Your task to perform on an android device: Open settings on Google Maps Image 0: 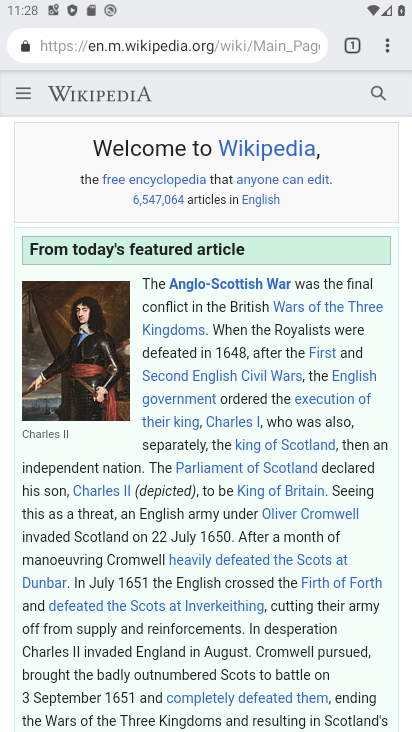
Step 0: press home button
Your task to perform on an android device: Open settings on Google Maps Image 1: 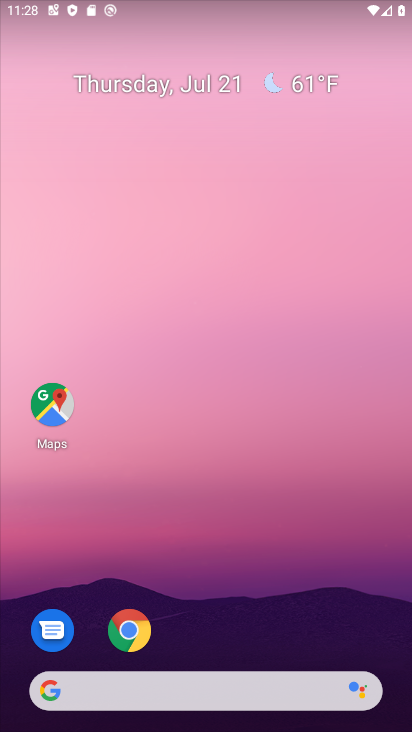
Step 1: click (46, 399)
Your task to perform on an android device: Open settings on Google Maps Image 2: 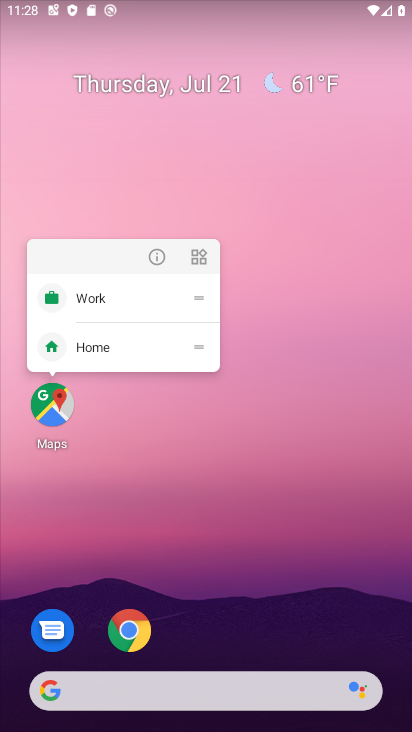
Step 2: click (54, 412)
Your task to perform on an android device: Open settings on Google Maps Image 3: 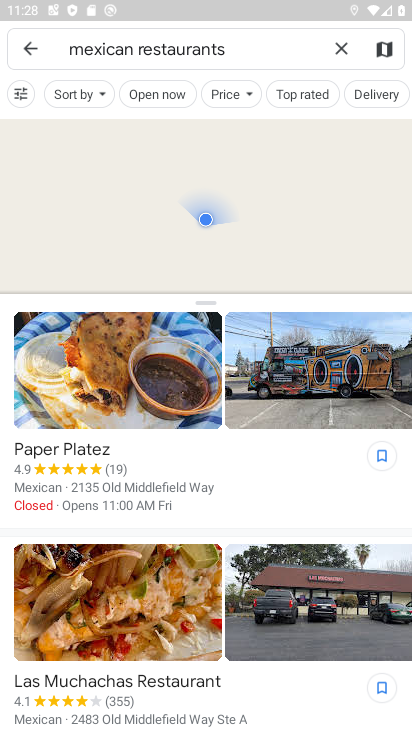
Step 3: click (339, 46)
Your task to perform on an android device: Open settings on Google Maps Image 4: 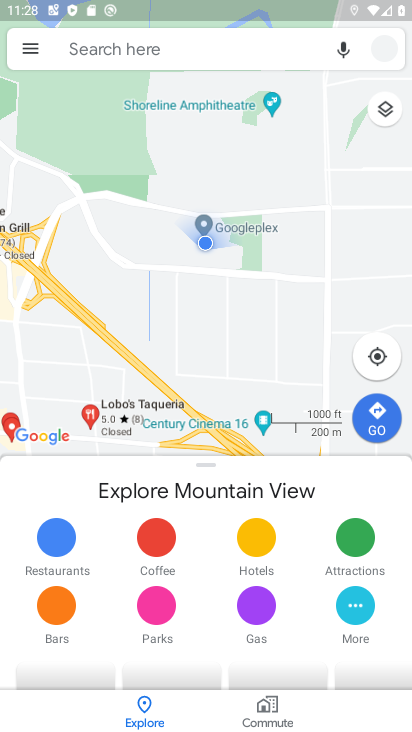
Step 4: click (32, 53)
Your task to perform on an android device: Open settings on Google Maps Image 5: 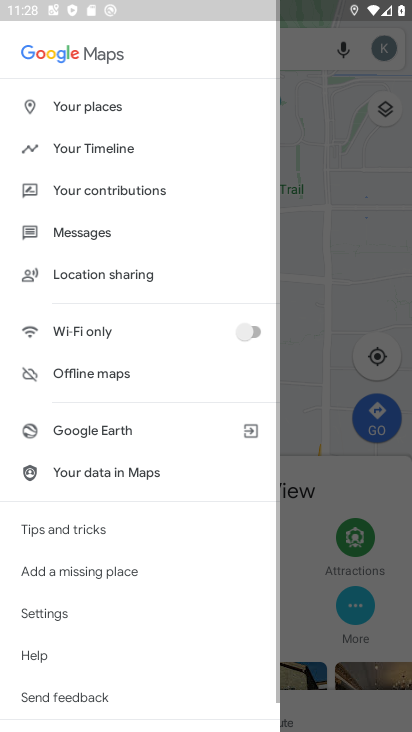
Step 5: click (36, 46)
Your task to perform on an android device: Open settings on Google Maps Image 6: 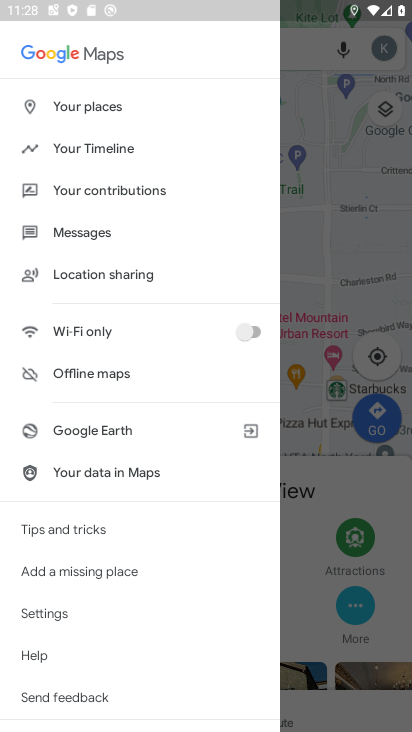
Step 6: click (62, 615)
Your task to perform on an android device: Open settings on Google Maps Image 7: 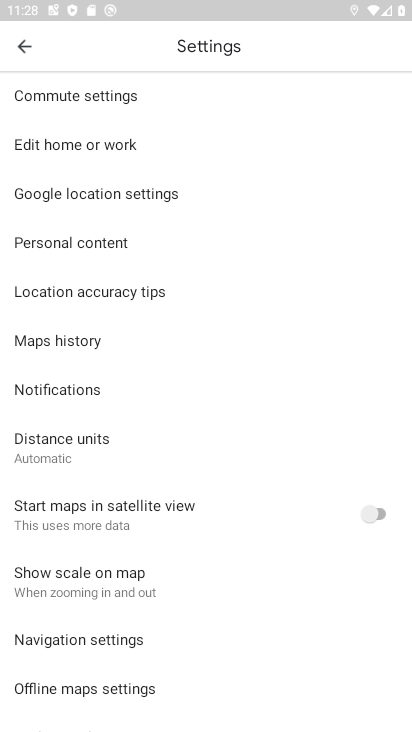
Step 7: task complete